Your task to perform on an android device: Open Youtube and go to the subscriptions tab Image 0: 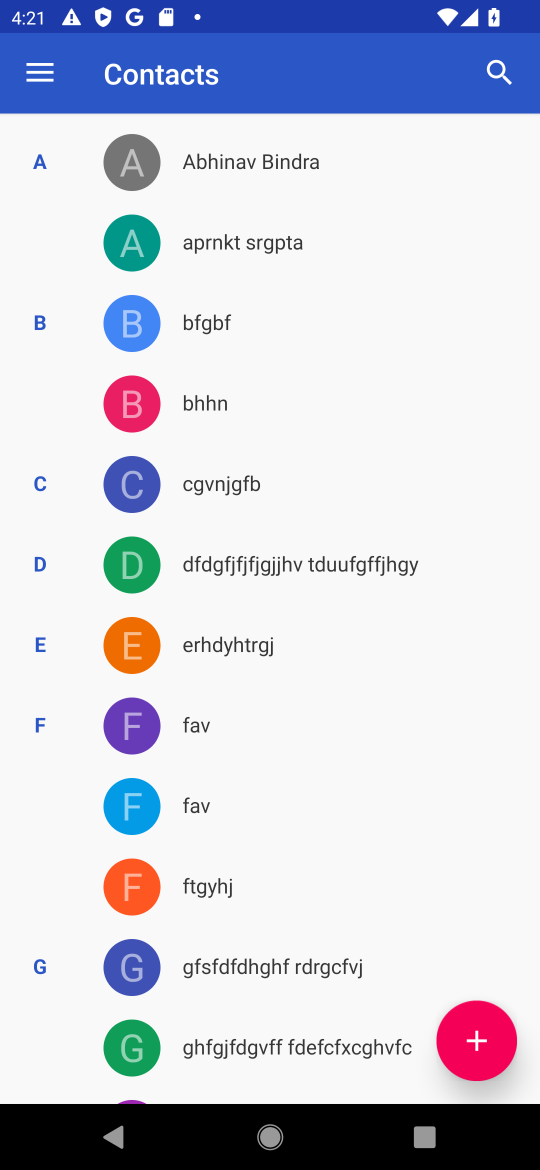
Step 0: press home button
Your task to perform on an android device: Open Youtube and go to the subscriptions tab Image 1: 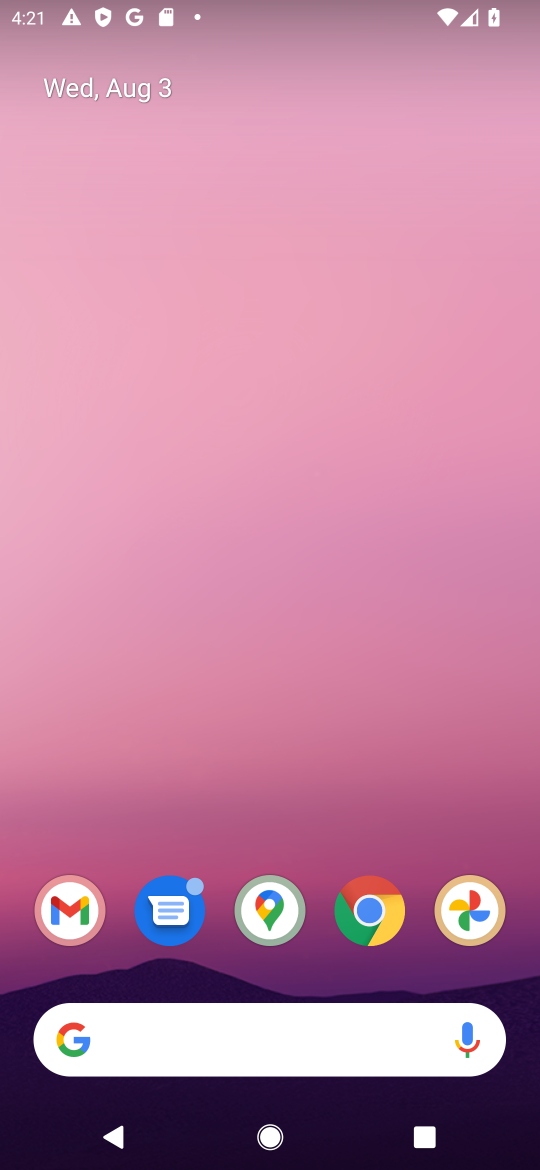
Step 1: drag from (119, 762) to (207, 352)
Your task to perform on an android device: Open Youtube and go to the subscriptions tab Image 2: 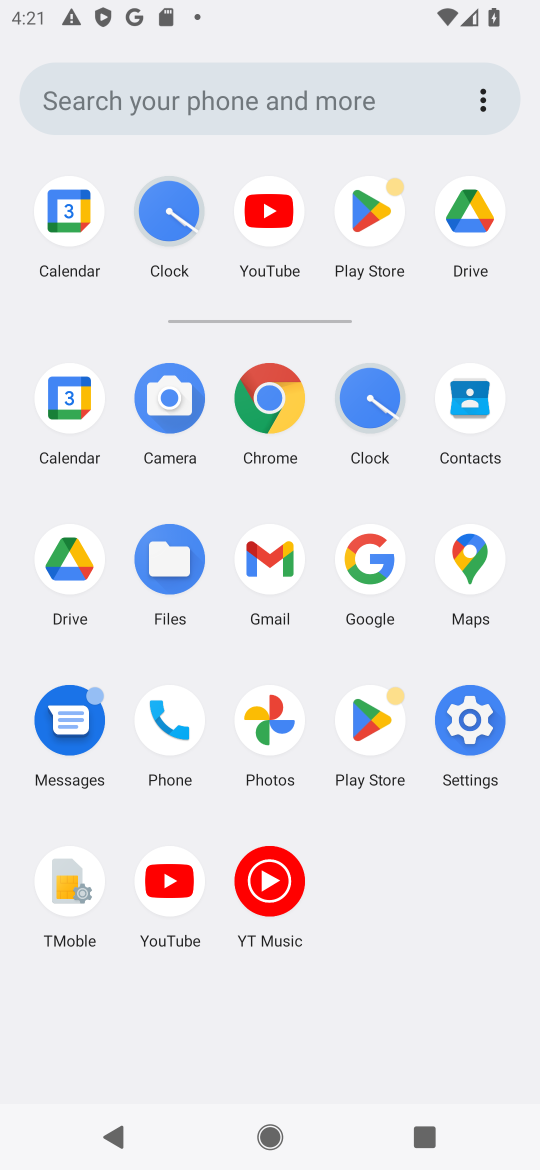
Step 2: click (164, 881)
Your task to perform on an android device: Open Youtube and go to the subscriptions tab Image 3: 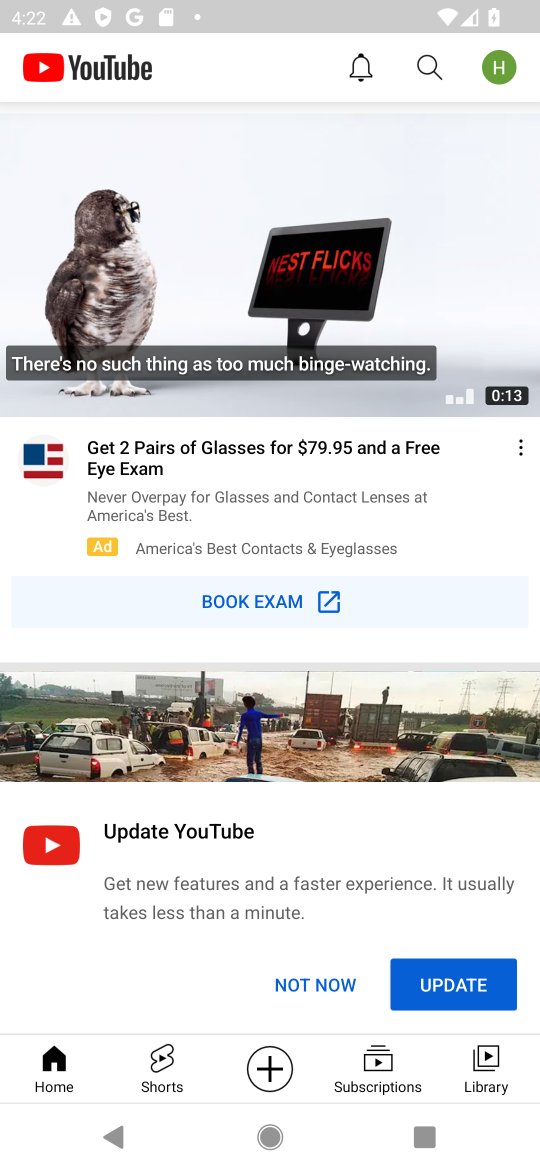
Step 3: click (337, 1063)
Your task to perform on an android device: Open Youtube and go to the subscriptions tab Image 4: 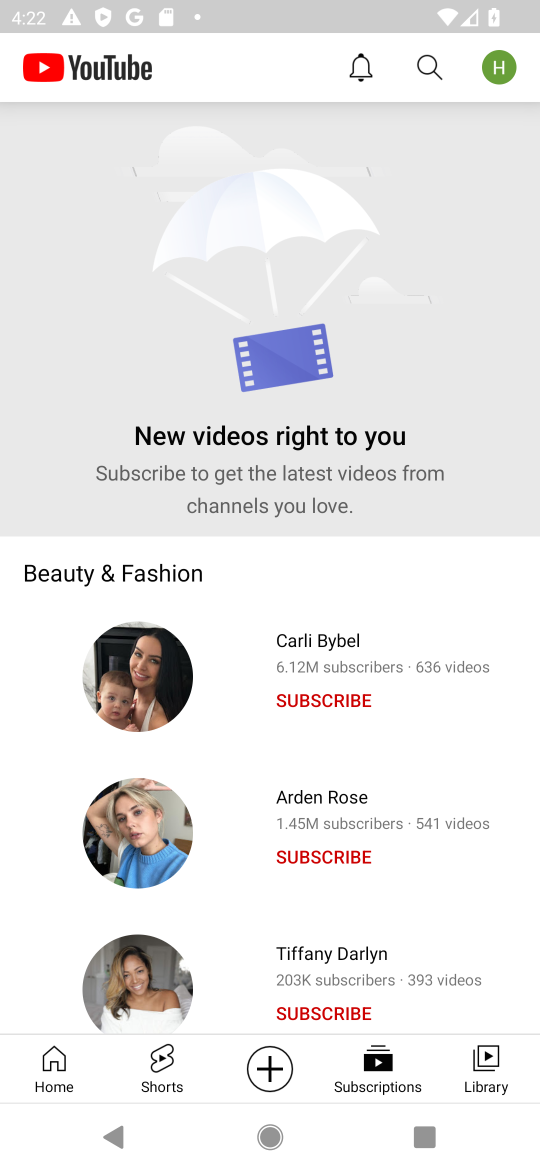
Step 4: click (386, 1056)
Your task to perform on an android device: Open Youtube and go to the subscriptions tab Image 5: 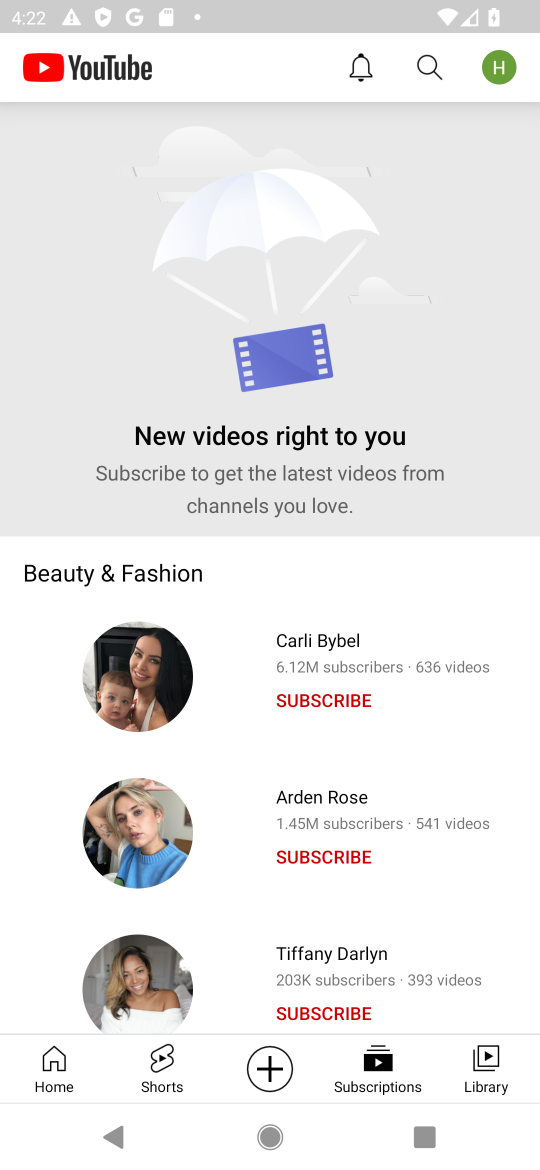
Step 5: click (386, 1067)
Your task to perform on an android device: Open Youtube and go to the subscriptions tab Image 6: 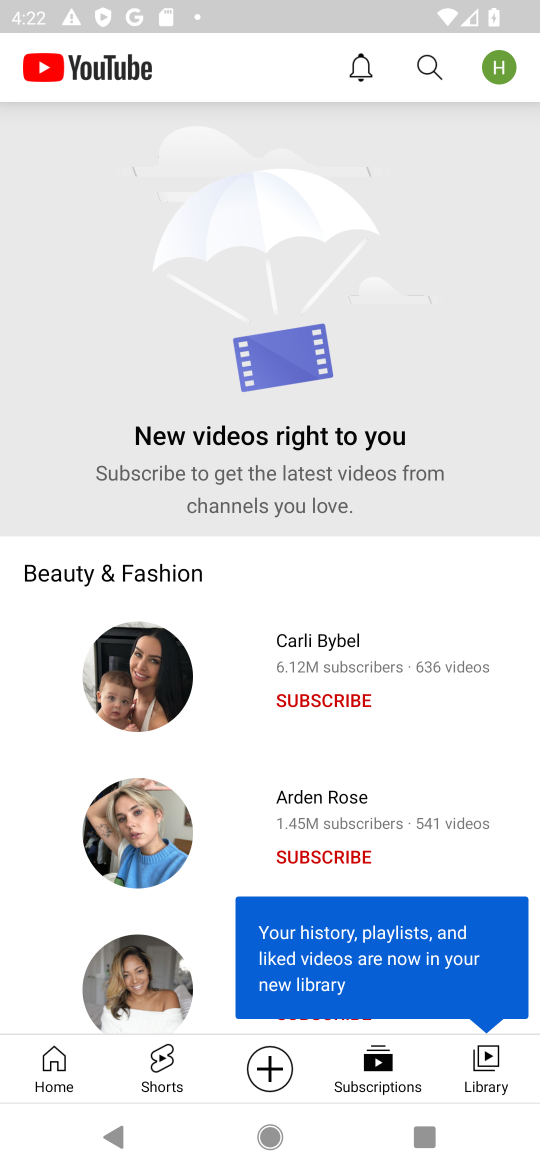
Step 6: task complete